Your task to perform on an android device: Open accessibility settings Image 0: 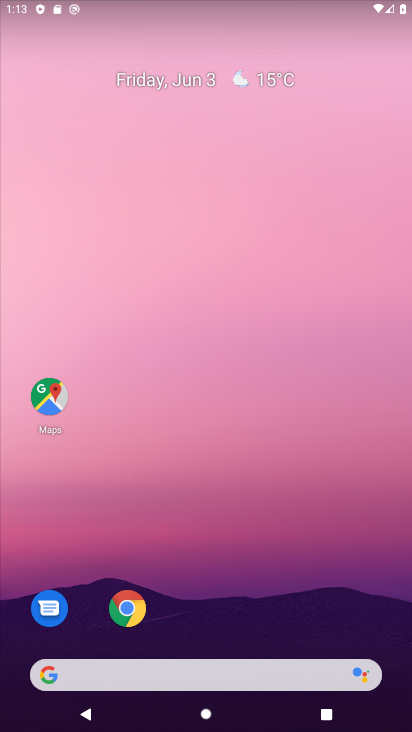
Step 0: drag from (229, 596) to (211, 107)
Your task to perform on an android device: Open accessibility settings Image 1: 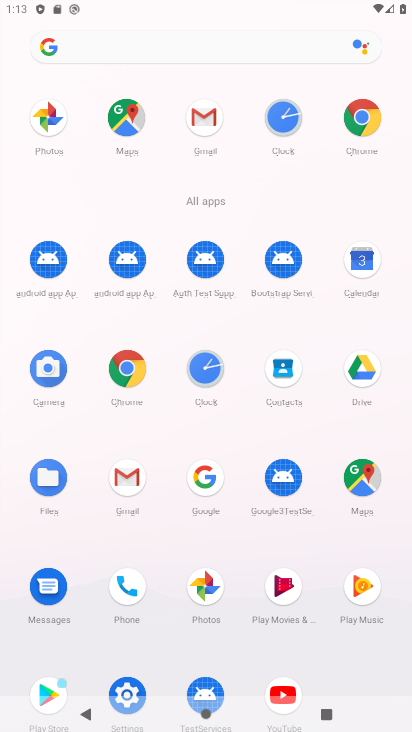
Step 1: click (121, 691)
Your task to perform on an android device: Open accessibility settings Image 2: 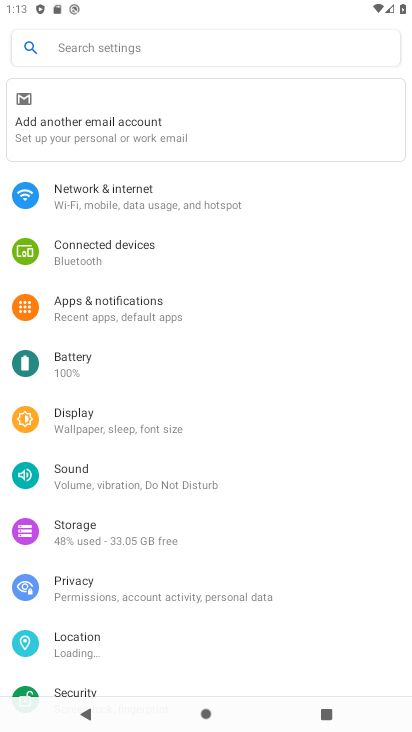
Step 2: drag from (206, 566) to (195, 102)
Your task to perform on an android device: Open accessibility settings Image 3: 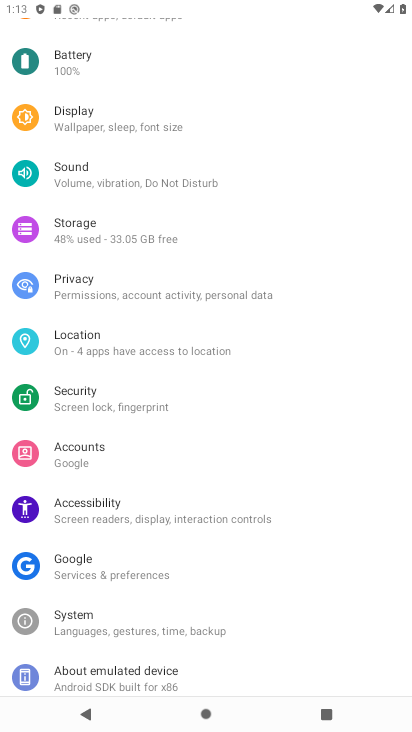
Step 3: click (145, 508)
Your task to perform on an android device: Open accessibility settings Image 4: 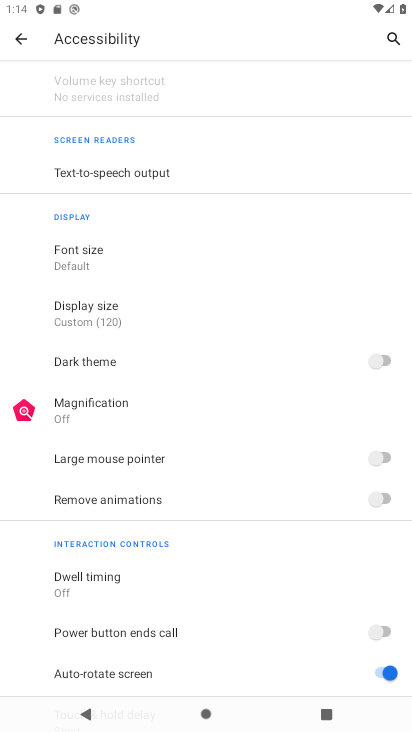
Step 4: task complete